Your task to perform on an android device: open app "Viber Messenger" (install if not already installed), go to login, and select forgot password Image 0: 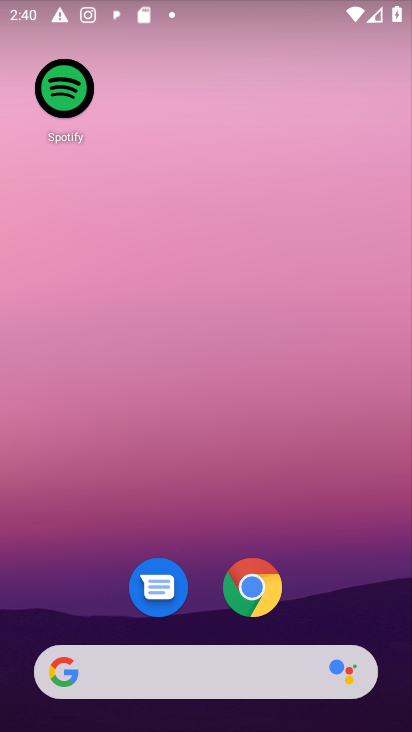
Step 0: press home button
Your task to perform on an android device: open app "Viber Messenger" (install if not already installed), go to login, and select forgot password Image 1: 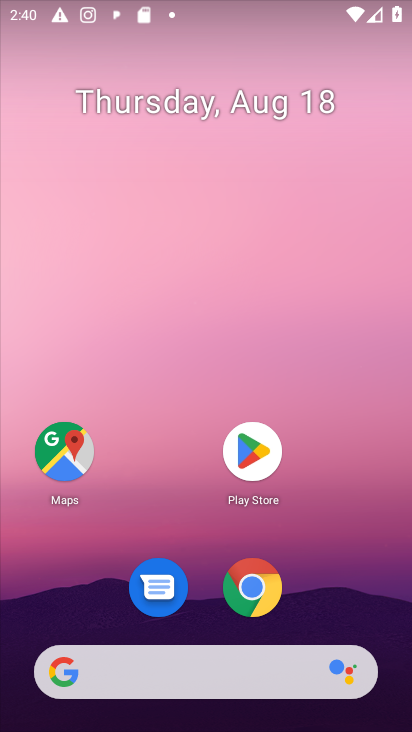
Step 1: click (255, 451)
Your task to perform on an android device: open app "Viber Messenger" (install if not already installed), go to login, and select forgot password Image 2: 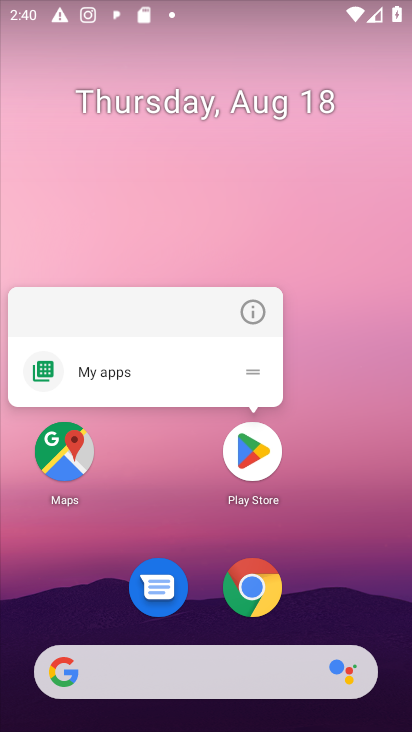
Step 2: click (255, 453)
Your task to perform on an android device: open app "Viber Messenger" (install if not already installed), go to login, and select forgot password Image 3: 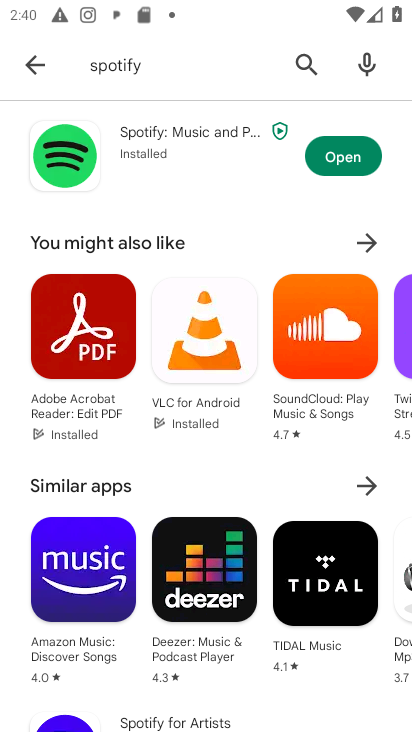
Step 3: click (301, 50)
Your task to perform on an android device: open app "Viber Messenger" (install if not already installed), go to login, and select forgot password Image 4: 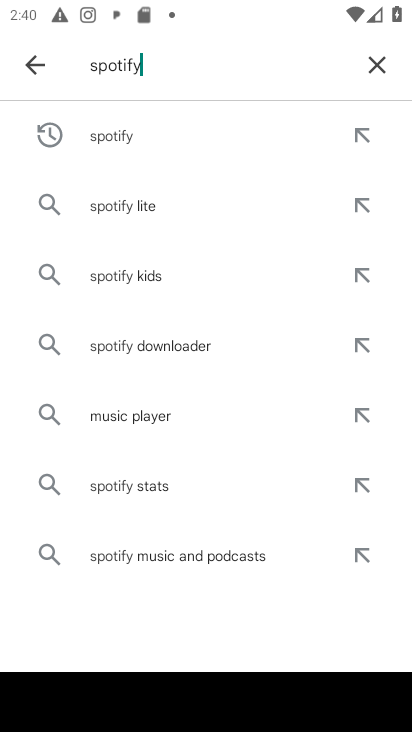
Step 4: click (374, 54)
Your task to perform on an android device: open app "Viber Messenger" (install if not already installed), go to login, and select forgot password Image 5: 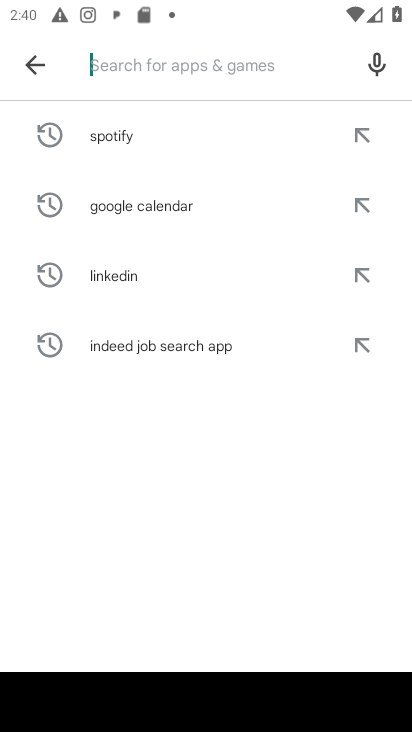
Step 5: type "Viber Messenger"
Your task to perform on an android device: open app "Viber Messenger" (install if not already installed), go to login, and select forgot password Image 6: 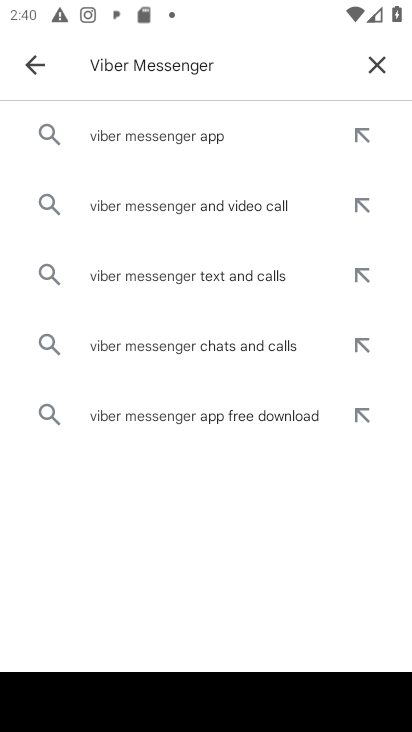
Step 6: click (205, 143)
Your task to perform on an android device: open app "Viber Messenger" (install if not already installed), go to login, and select forgot password Image 7: 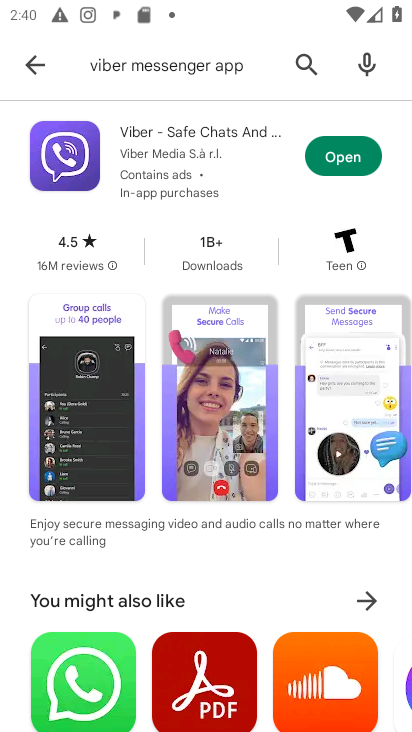
Step 7: click (352, 159)
Your task to perform on an android device: open app "Viber Messenger" (install if not already installed), go to login, and select forgot password Image 8: 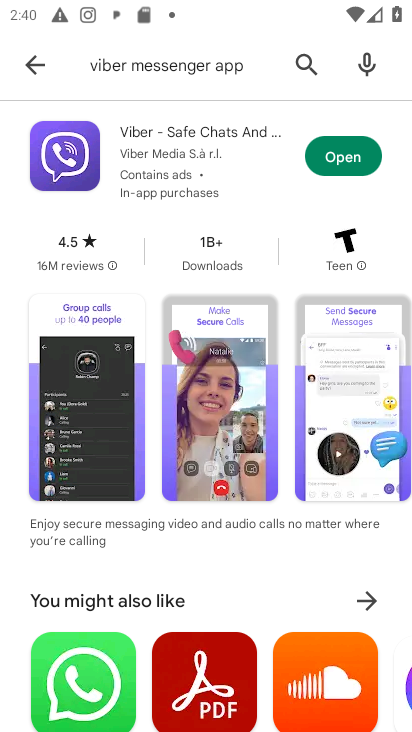
Step 8: click (346, 155)
Your task to perform on an android device: open app "Viber Messenger" (install if not already installed), go to login, and select forgot password Image 9: 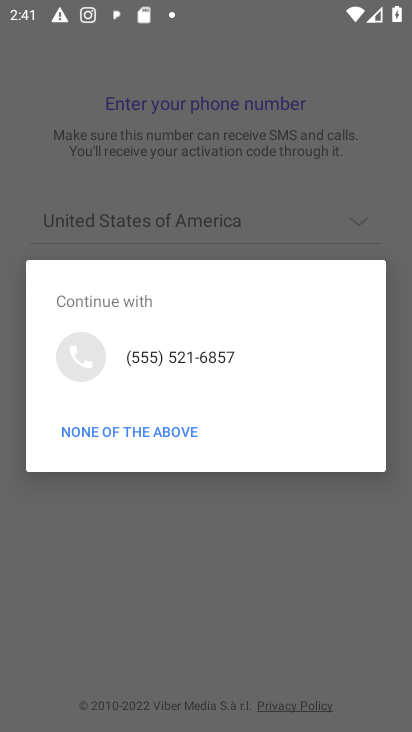
Step 9: click (163, 429)
Your task to perform on an android device: open app "Viber Messenger" (install if not already installed), go to login, and select forgot password Image 10: 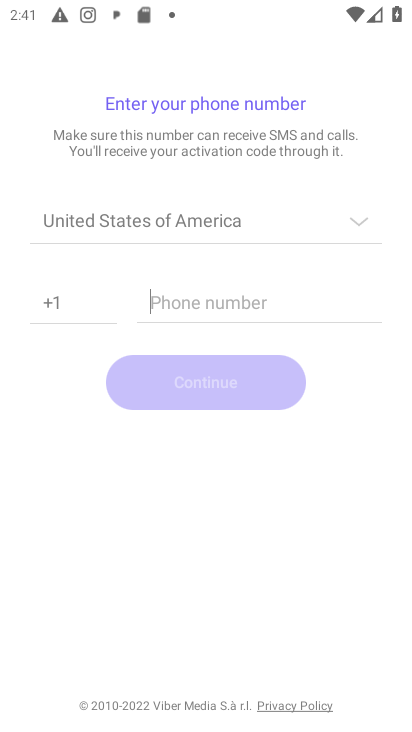
Step 10: task complete